Your task to perform on an android device: Open battery settings Image 0: 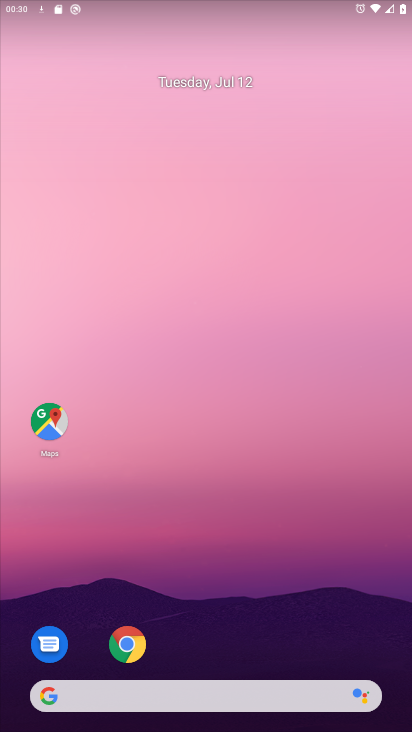
Step 0: drag from (166, 606) to (183, 182)
Your task to perform on an android device: Open battery settings Image 1: 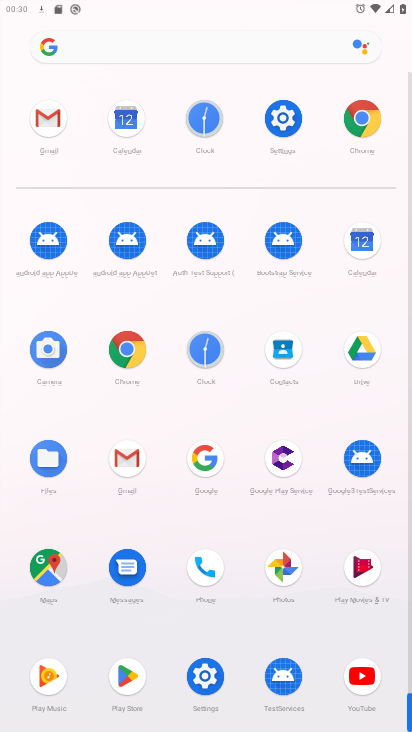
Step 1: click (292, 110)
Your task to perform on an android device: Open battery settings Image 2: 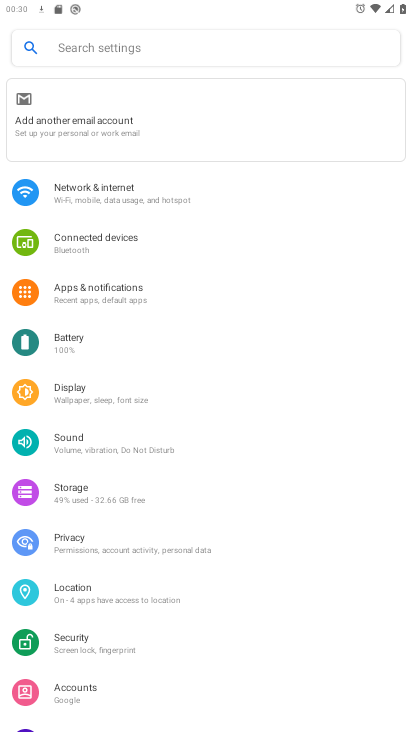
Step 2: click (96, 333)
Your task to perform on an android device: Open battery settings Image 3: 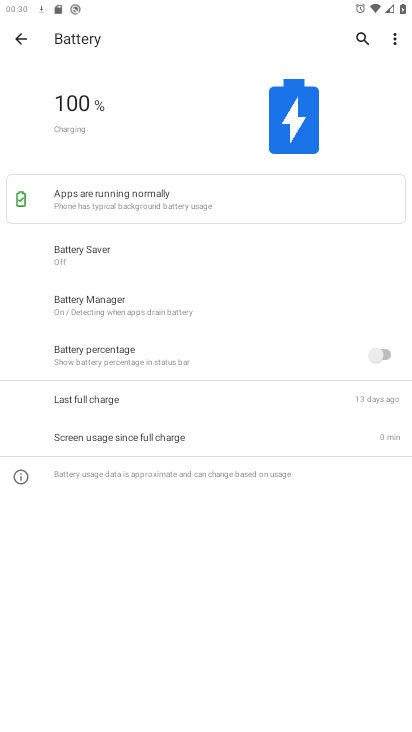
Step 3: task complete